Your task to perform on an android device: create a new album in the google photos Image 0: 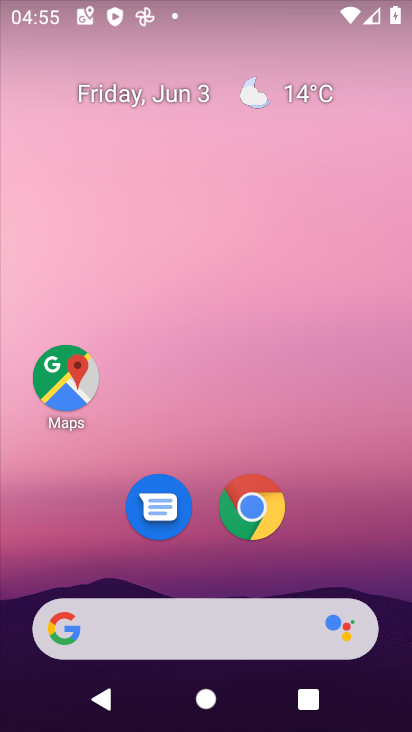
Step 0: press home button
Your task to perform on an android device: create a new album in the google photos Image 1: 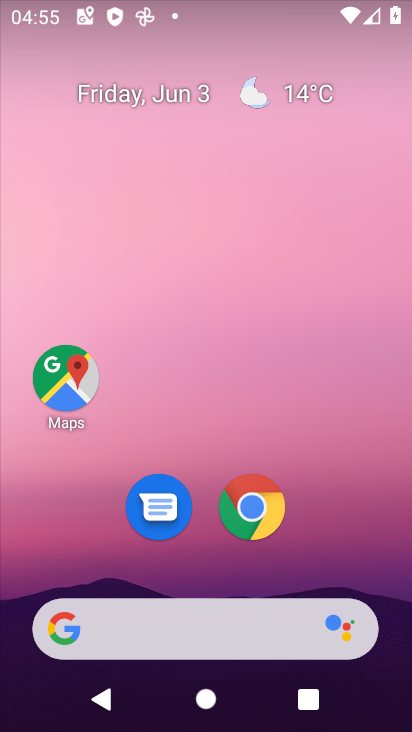
Step 1: drag from (381, 533) to (346, 129)
Your task to perform on an android device: create a new album in the google photos Image 2: 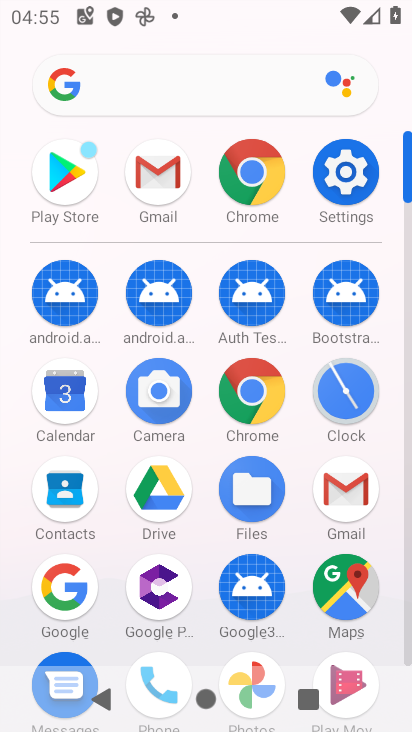
Step 2: drag from (117, 585) to (127, 380)
Your task to perform on an android device: create a new album in the google photos Image 3: 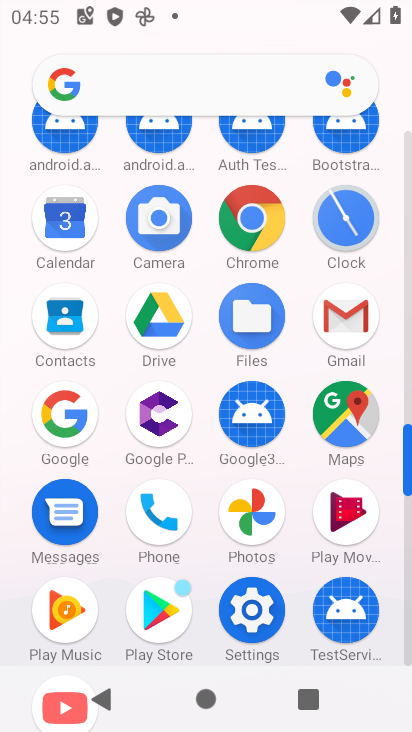
Step 3: click (248, 509)
Your task to perform on an android device: create a new album in the google photos Image 4: 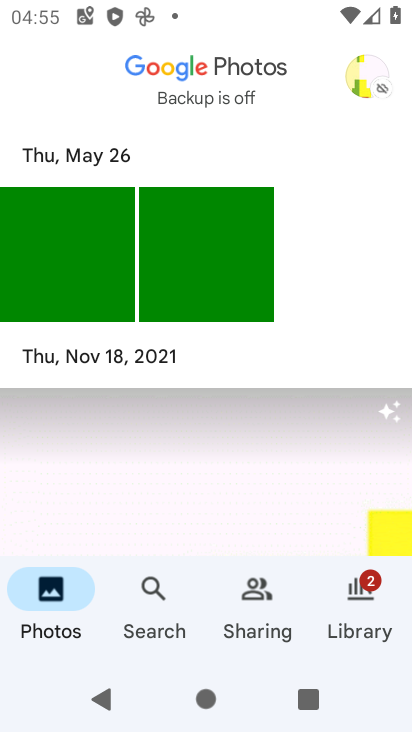
Step 4: click (77, 266)
Your task to perform on an android device: create a new album in the google photos Image 5: 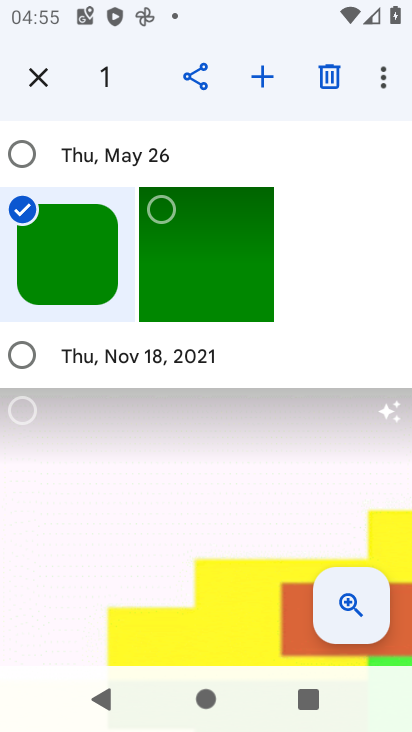
Step 5: click (183, 260)
Your task to perform on an android device: create a new album in the google photos Image 6: 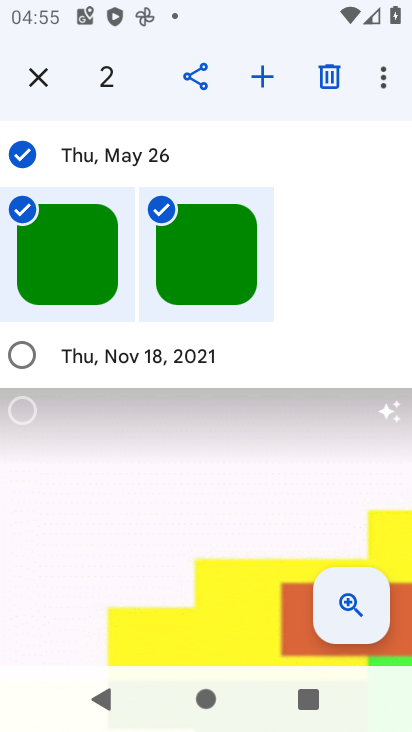
Step 6: click (266, 70)
Your task to perform on an android device: create a new album in the google photos Image 7: 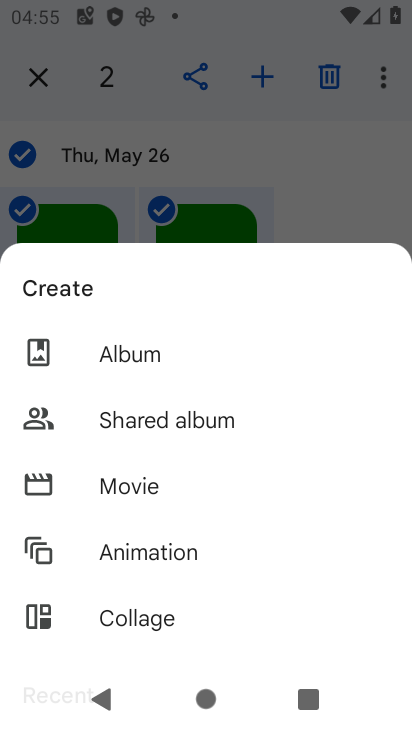
Step 7: click (135, 348)
Your task to perform on an android device: create a new album in the google photos Image 8: 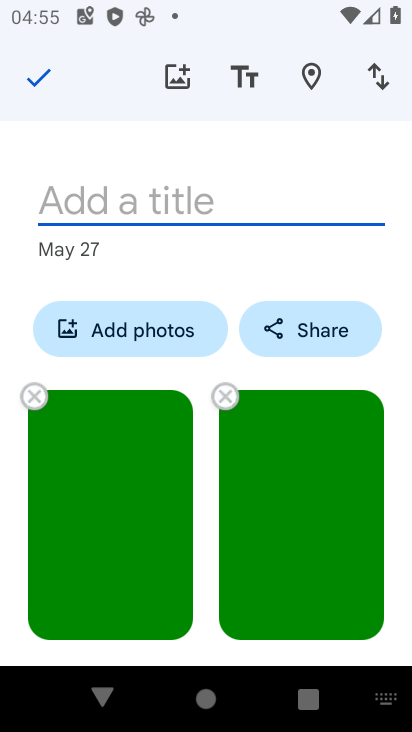
Step 8: click (155, 195)
Your task to perform on an android device: create a new album in the google photos Image 9: 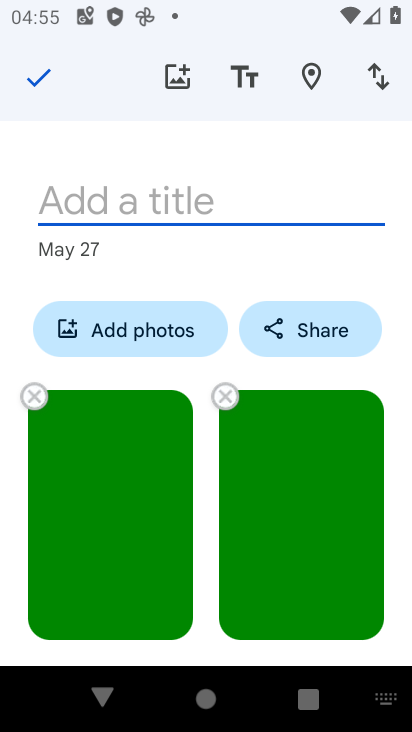
Step 9: type "sdssddsdsdds"
Your task to perform on an android device: create a new album in the google photos Image 10: 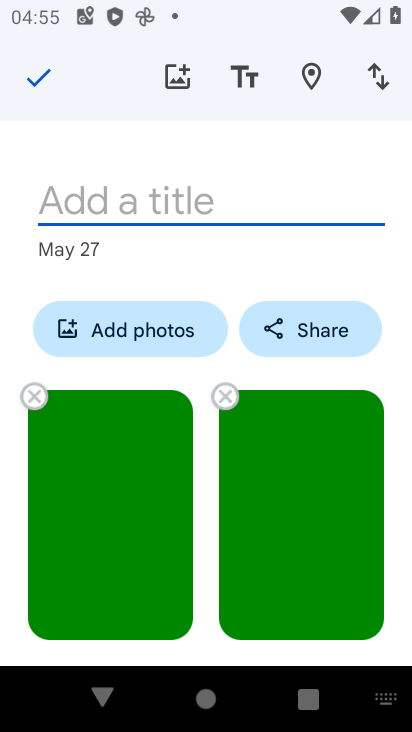
Step 10: click (238, 203)
Your task to perform on an android device: create a new album in the google photos Image 11: 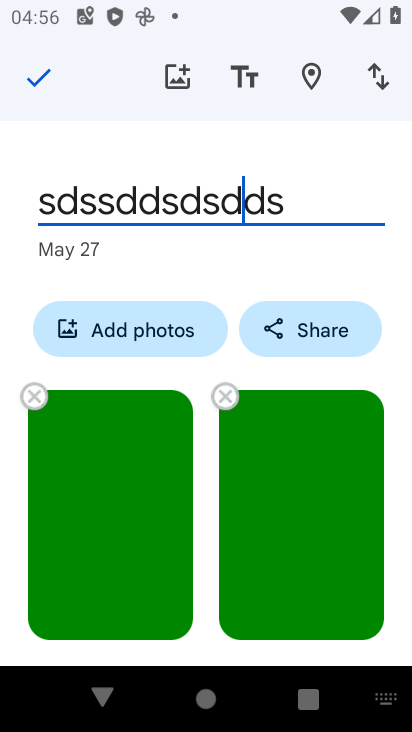
Step 11: click (36, 77)
Your task to perform on an android device: create a new album in the google photos Image 12: 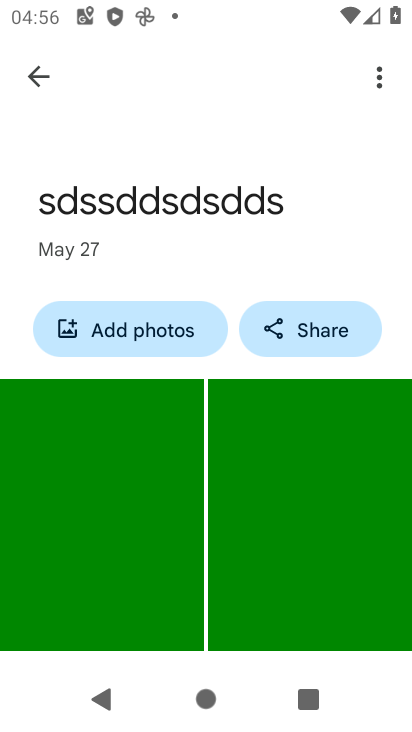
Step 12: task complete